Your task to perform on an android device: turn off smart reply in the gmail app Image 0: 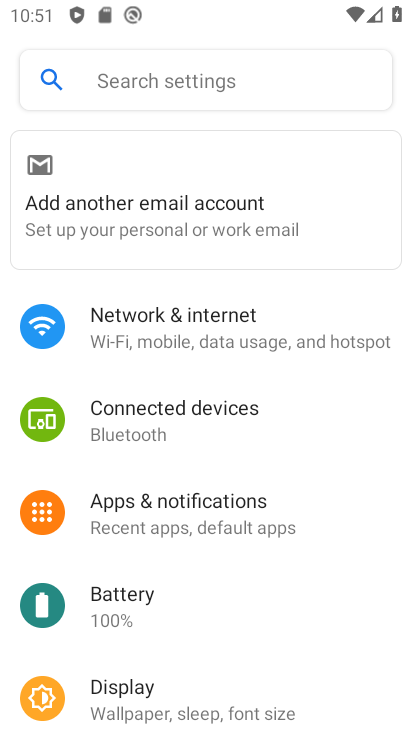
Step 0: press home button
Your task to perform on an android device: turn off smart reply in the gmail app Image 1: 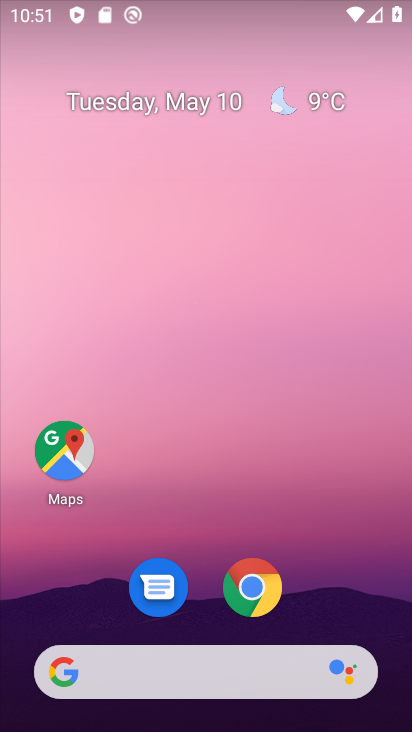
Step 1: drag from (325, 596) to (384, 16)
Your task to perform on an android device: turn off smart reply in the gmail app Image 2: 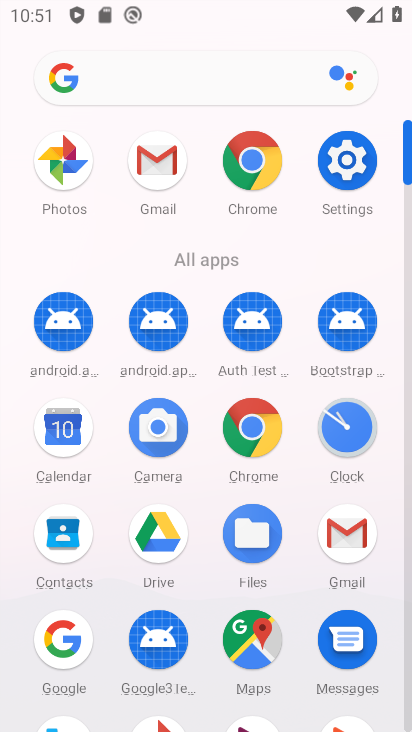
Step 2: click (151, 169)
Your task to perform on an android device: turn off smart reply in the gmail app Image 3: 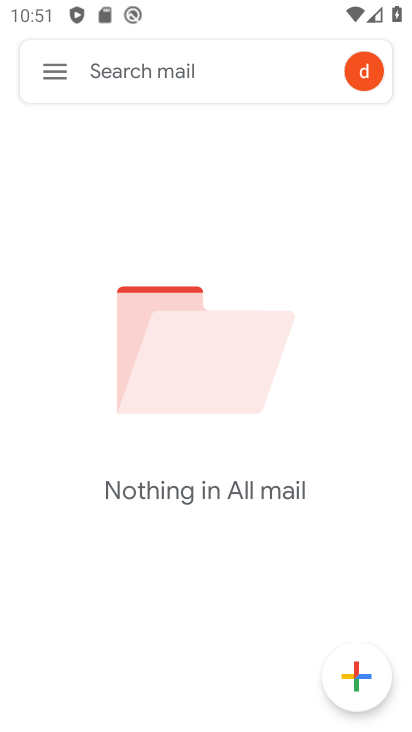
Step 3: click (61, 80)
Your task to perform on an android device: turn off smart reply in the gmail app Image 4: 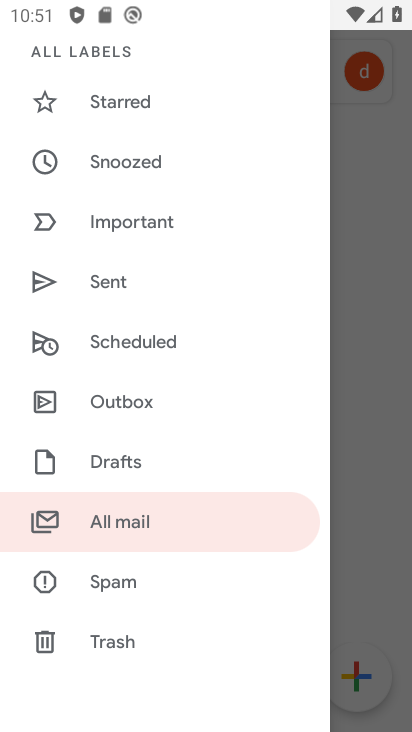
Step 4: drag from (170, 595) to (201, 188)
Your task to perform on an android device: turn off smart reply in the gmail app Image 5: 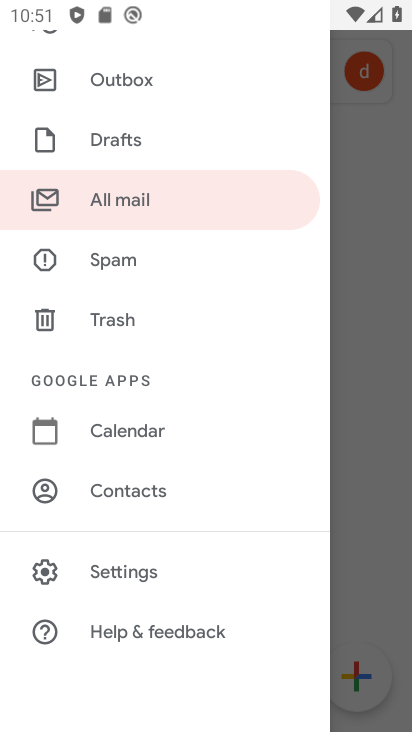
Step 5: click (130, 577)
Your task to perform on an android device: turn off smart reply in the gmail app Image 6: 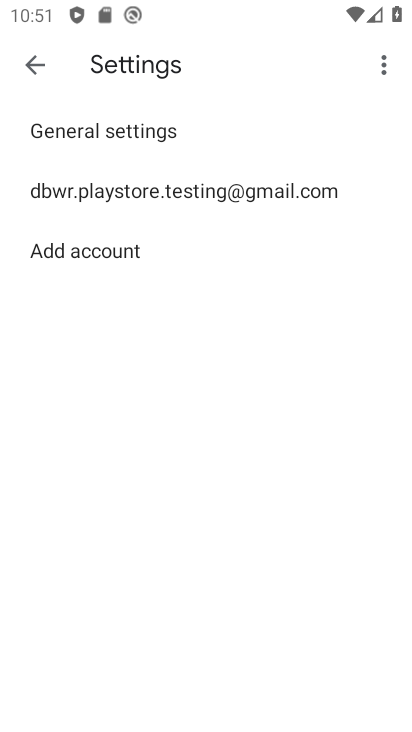
Step 6: click (130, 193)
Your task to perform on an android device: turn off smart reply in the gmail app Image 7: 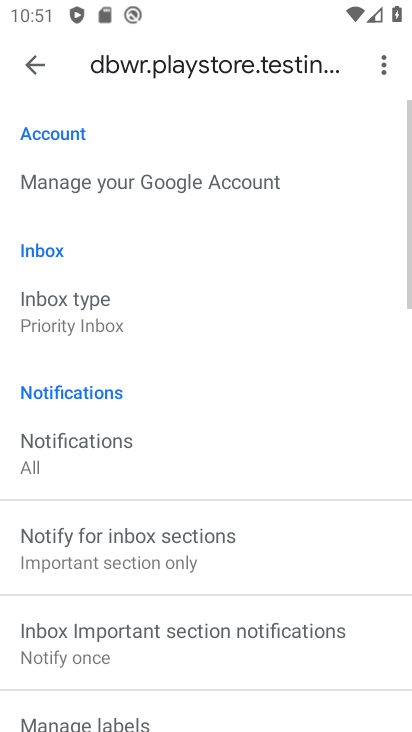
Step 7: drag from (177, 486) to (183, 135)
Your task to perform on an android device: turn off smart reply in the gmail app Image 8: 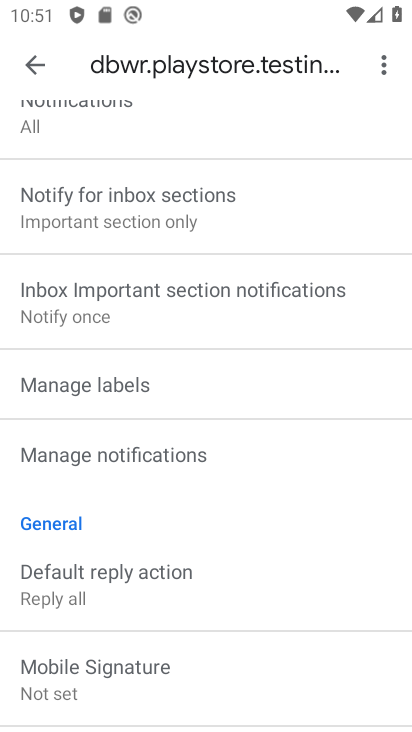
Step 8: drag from (174, 491) to (172, 177)
Your task to perform on an android device: turn off smart reply in the gmail app Image 9: 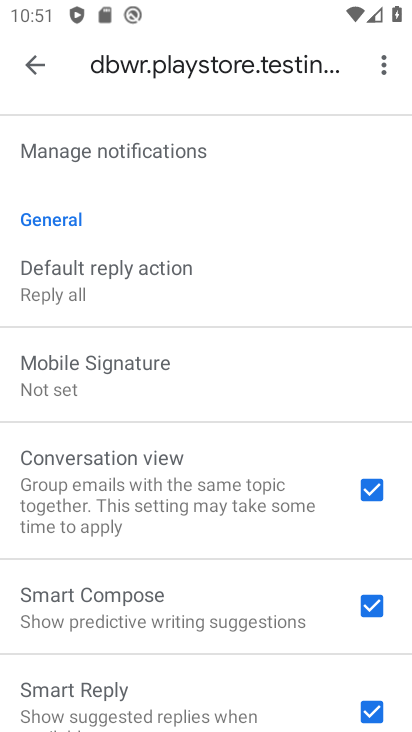
Step 9: drag from (121, 544) to (122, 143)
Your task to perform on an android device: turn off smart reply in the gmail app Image 10: 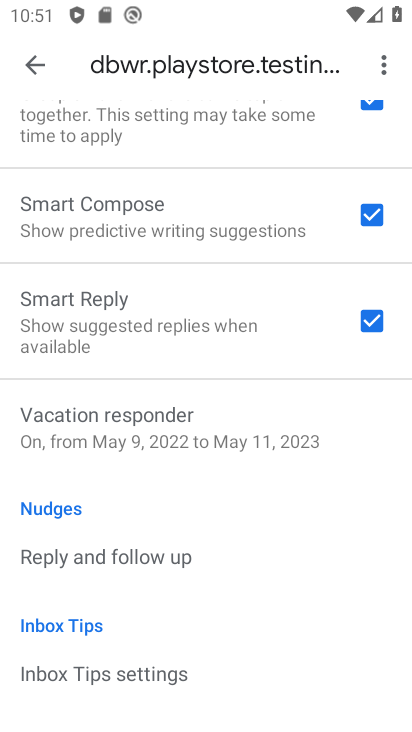
Step 10: click (365, 330)
Your task to perform on an android device: turn off smart reply in the gmail app Image 11: 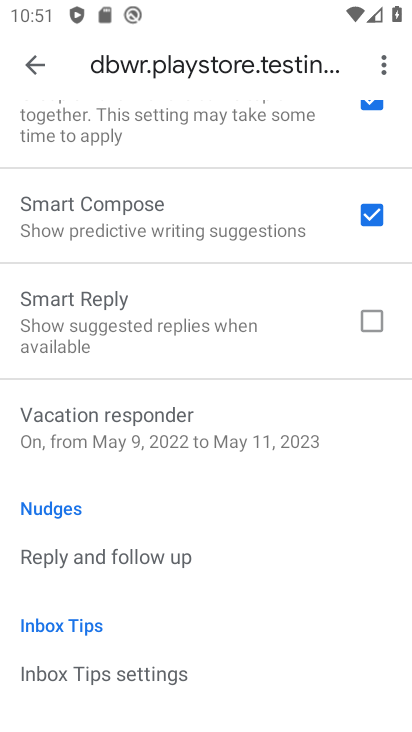
Step 11: task complete